Your task to perform on an android device: remove spam from my inbox in the gmail app Image 0: 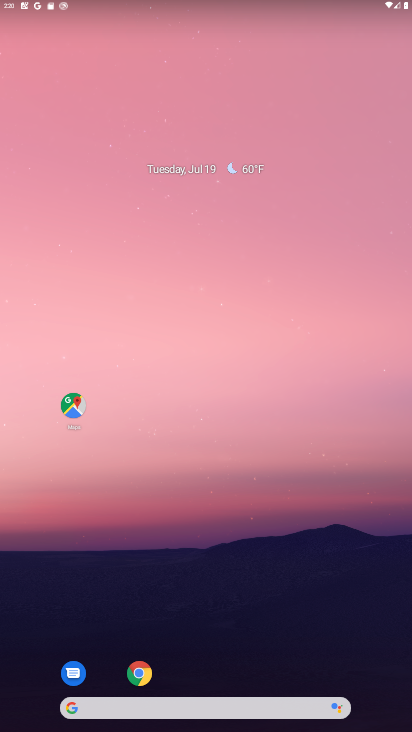
Step 0: drag from (139, 658) to (114, 152)
Your task to perform on an android device: remove spam from my inbox in the gmail app Image 1: 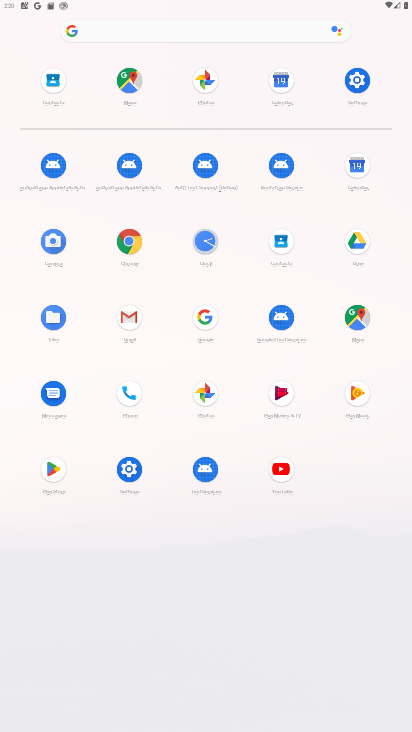
Step 1: click (130, 318)
Your task to perform on an android device: remove spam from my inbox in the gmail app Image 2: 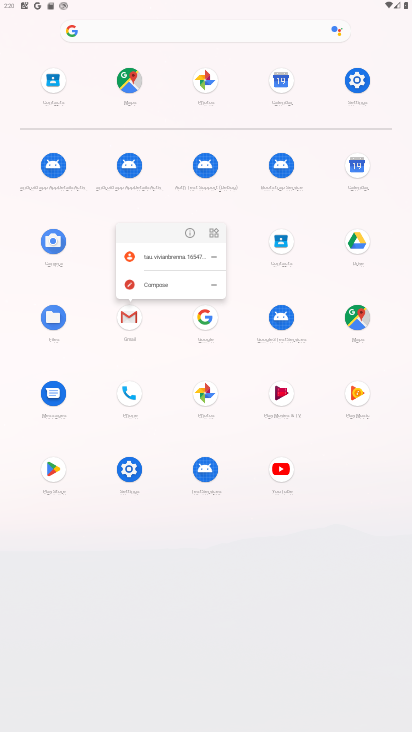
Step 2: click (130, 318)
Your task to perform on an android device: remove spam from my inbox in the gmail app Image 3: 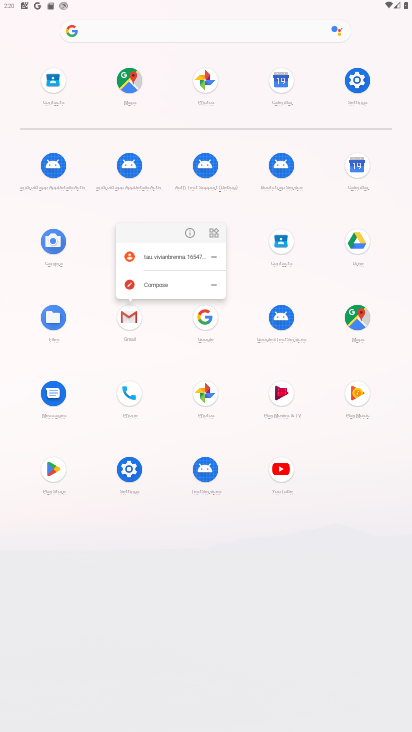
Step 3: click (130, 318)
Your task to perform on an android device: remove spam from my inbox in the gmail app Image 4: 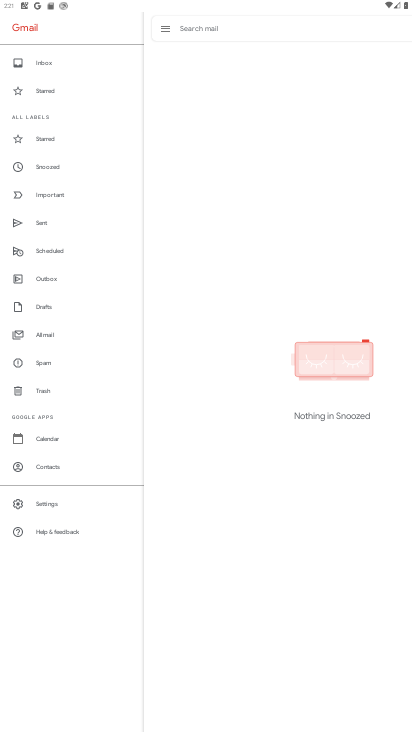
Step 4: click (58, 362)
Your task to perform on an android device: remove spam from my inbox in the gmail app Image 5: 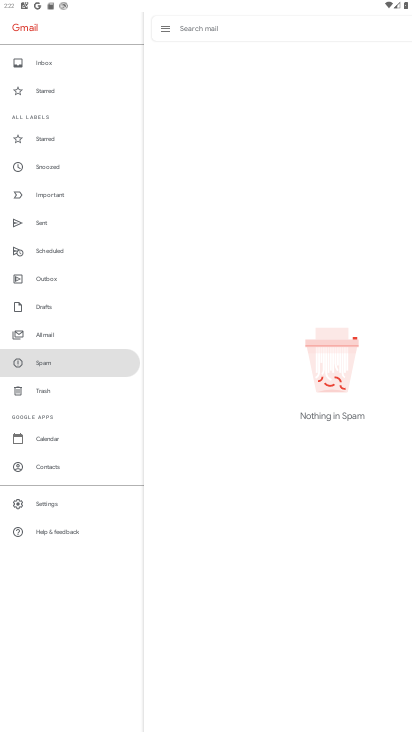
Step 5: task complete